Your task to perform on an android device: Show the shopping cart on bestbuy. Image 0: 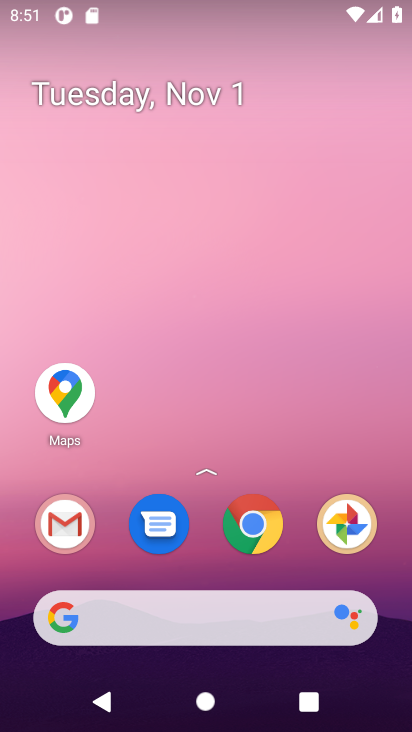
Step 0: press home button
Your task to perform on an android device: Show the shopping cart on bestbuy. Image 1: 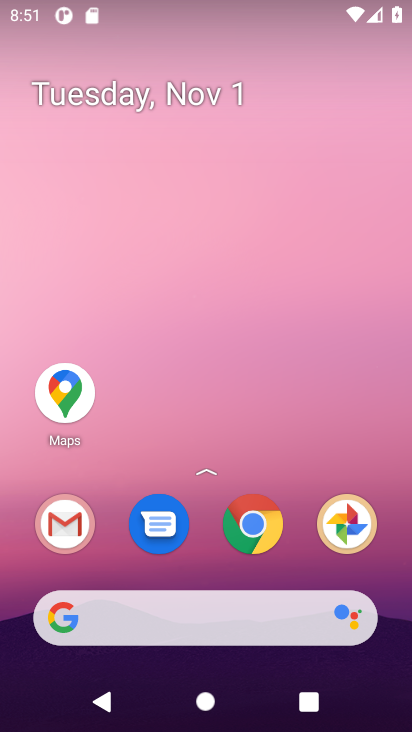
Step 1: click (89, 611)
Your task to perform on an android device: Show the shopping cart on bestbuy. Image 2: 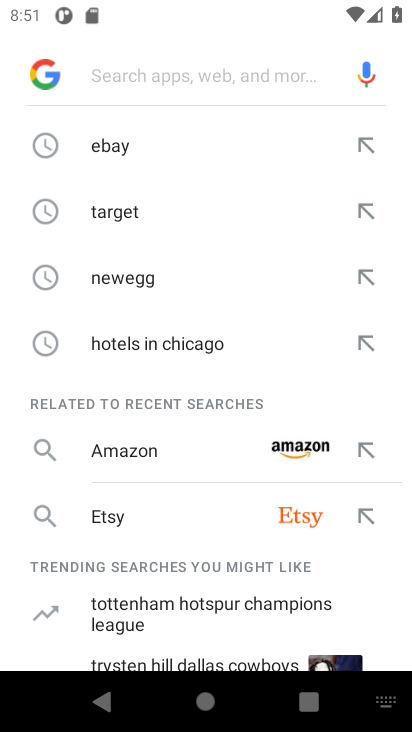
Step 2: type "bestbuy"
Your task to perform on an android device: Show the shopping cart on bestbuy. Image 3: 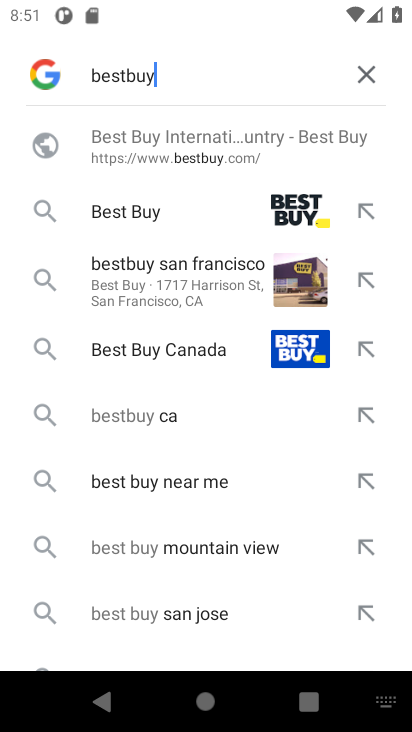
Step 3: press enter
Your task to perform on an android device: Show the shopping cart on bestbuy. Image 4: 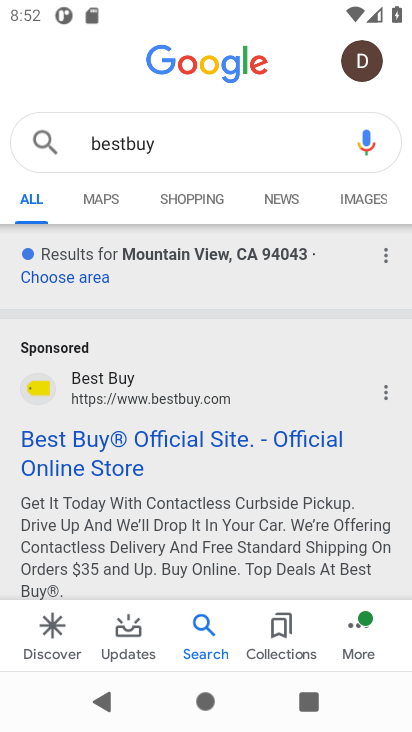
Step 4: click (111, 455)
Your task to perform on an android device: Show the shopping cart on bestbuy. Image 5: 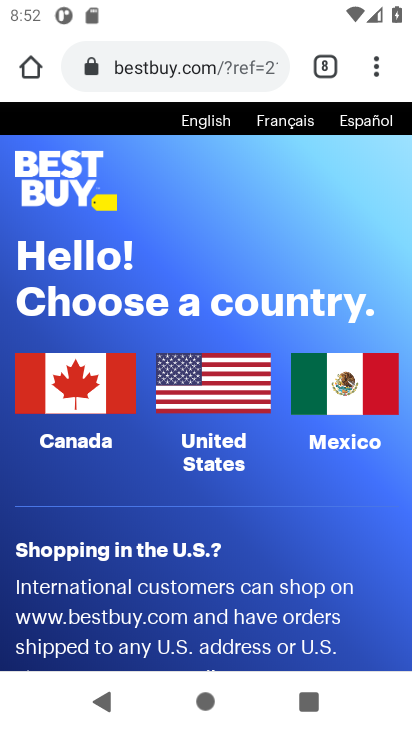
Step 5: click (74, 392)
Your task to perform on an android device: Show the shopping cart on bestbuy. Image 6: 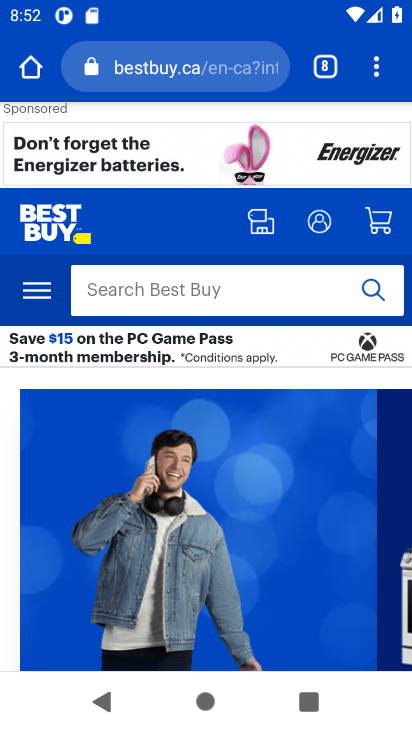
Step 6: click (378, 221)
Your task to perform on an android device: Show the shopping cart on bestbuy. Image 7: 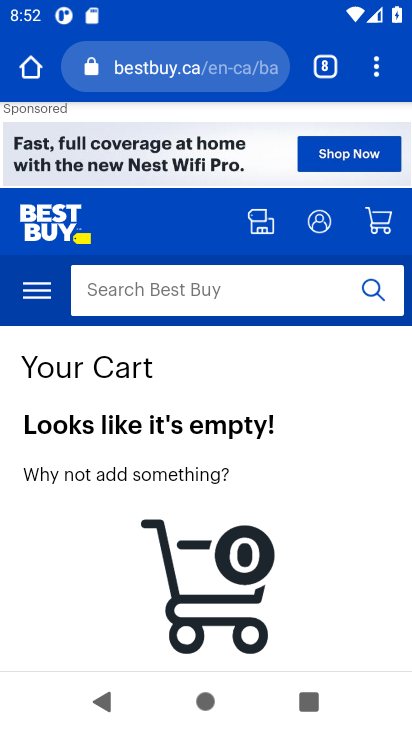
Step 7: task complete